Your task to perform on an android device: turn pop-ups off in chrome Image 0: 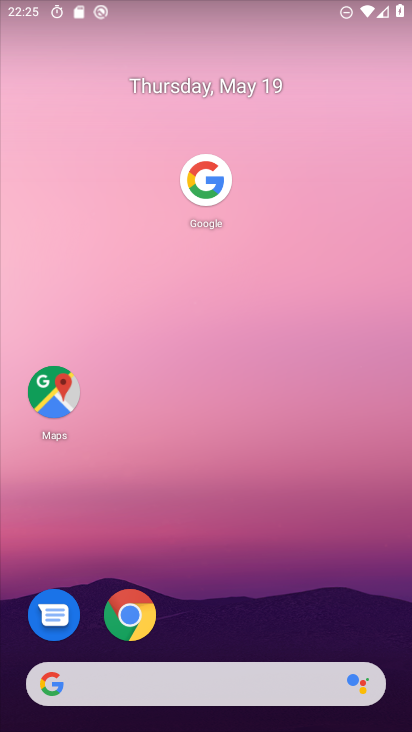
Step 0: click (128, 615)
Your task to perform on an android device: turn pop-ups off in chrome Image 1: 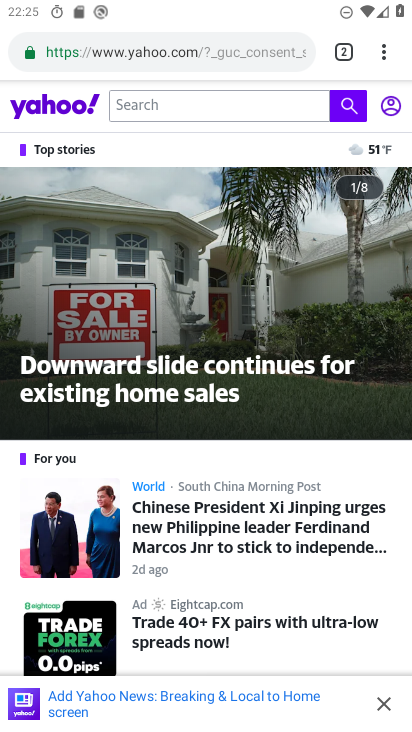
Step 1: click (379, 48)
Your task to perform on an android device: turn pop-ups off in chrome Image 2: 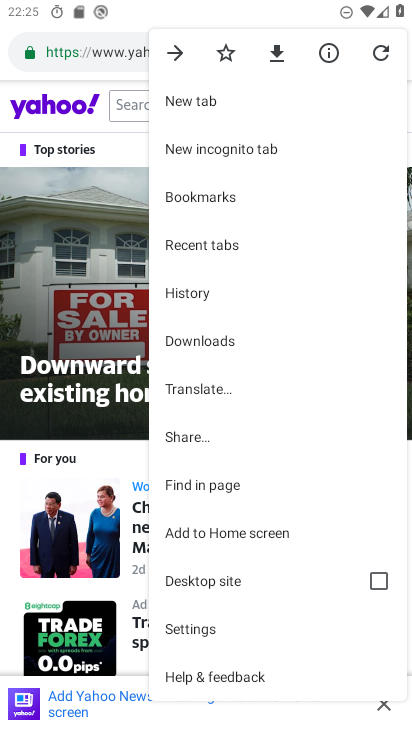
Step 2: click (189, 622)
Your task to perform on an android device: turn pop-ups off in chrome Image 3: 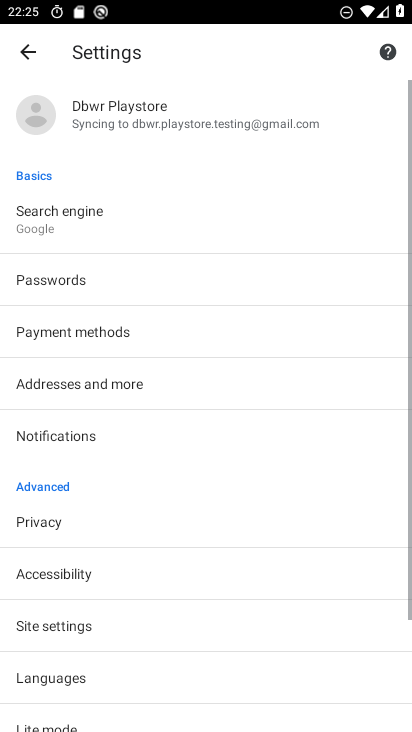
Step 3: drag from (194, 545) to (191, 276)
Your task to perform on an android device: turn pop-ups off in chrome Image 4: 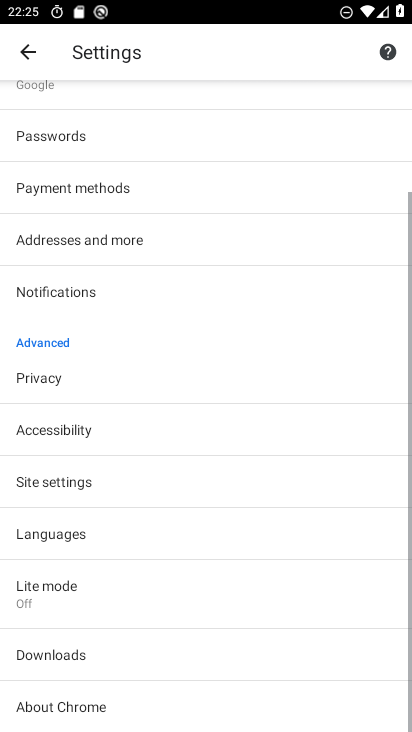
Step 4: click (16, 477)
Your task to perform on an android device: turn pop-ups off in chrome Image 5: 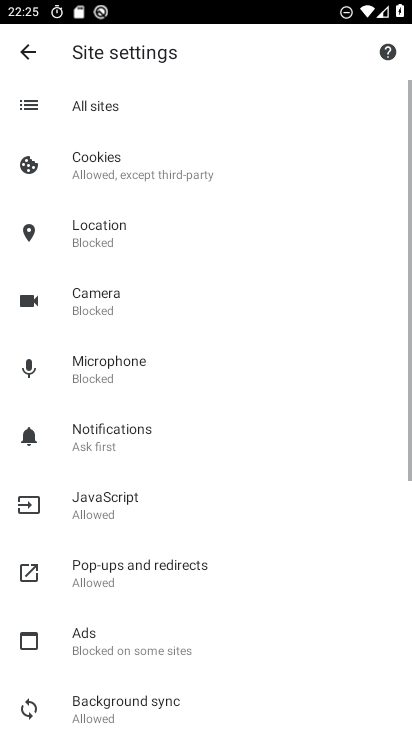
Step 5: click (132, 583)
Your task to perform on an android device: turn pop-ups off in chrome Image 6: 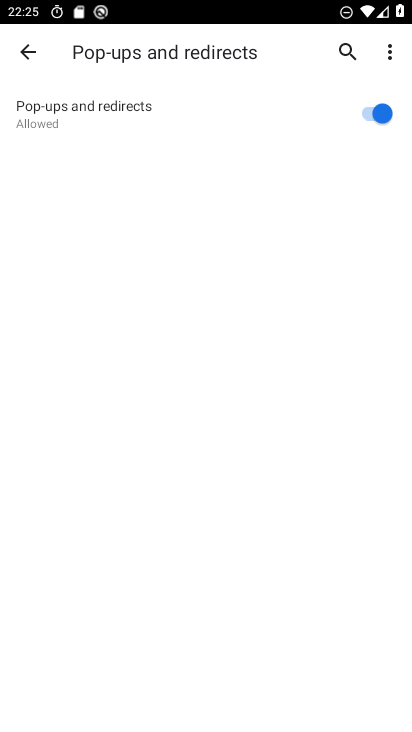
Step 6: click (376, 118)
Your task to perform on an android device: turn pop-ups off in chrome Image 7: 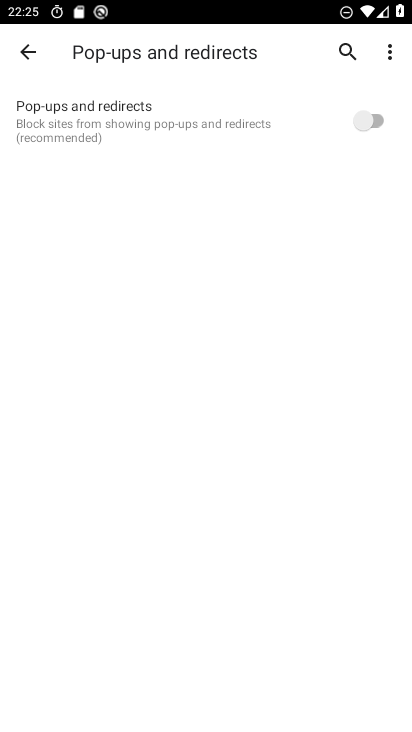
Step 7: task complete